Your task to perform on an android device: What is the recent news? Image 0: 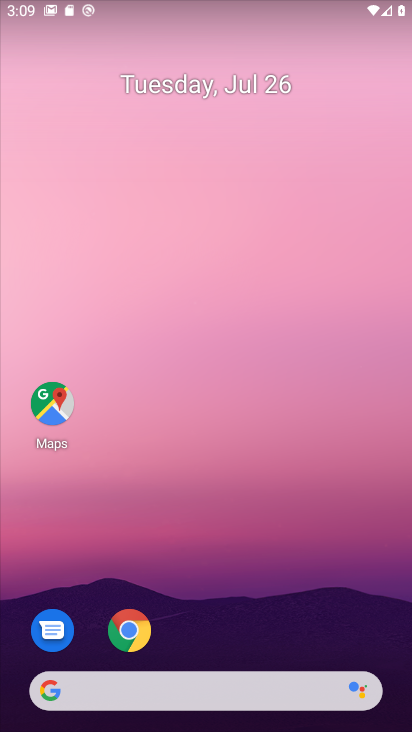
Step 0: click (157, 689)
Your task to perform on an android device: What is the recent news? Image 1: 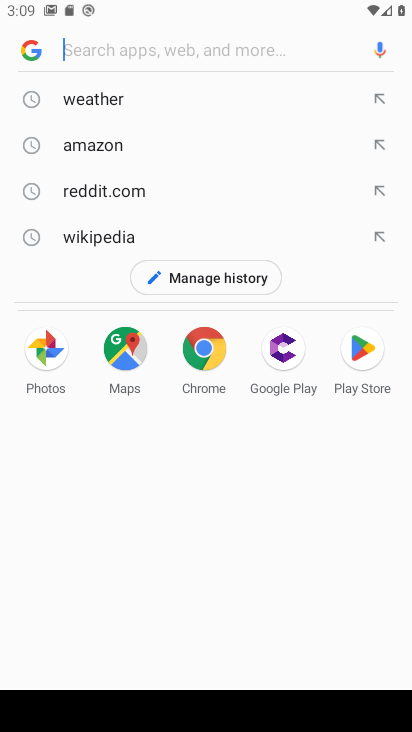
Step 1: click (42, 48)
Your task to perform on an android device: What is the recent news? Image 2: 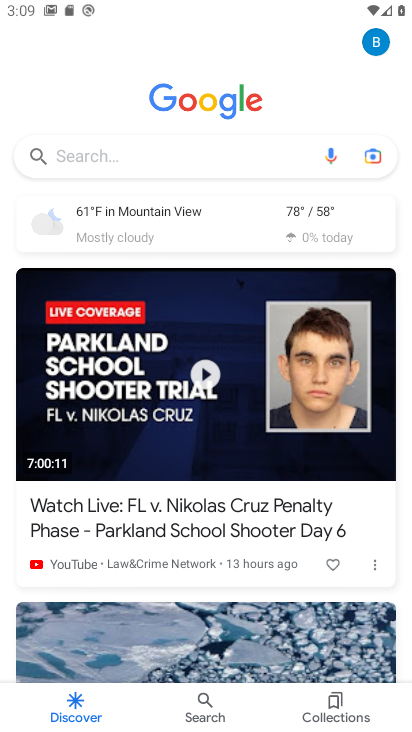
Step 2: task complete